Your task to perform on an android device: Do I have any events today? Image 0: 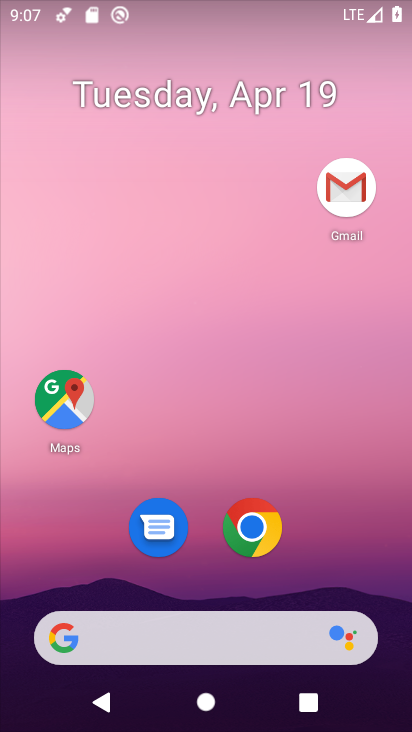
Step 0: drag from (363, 536) to (319, 121)
Your task to perform on an android device: Do I have any events today? Image 1: 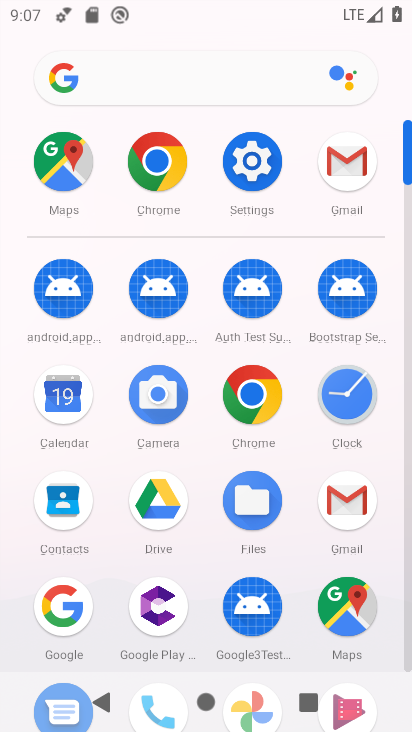
Step 1: click (60, 389)
Your task to perform on an android device: Do I have any events today? Image 2: 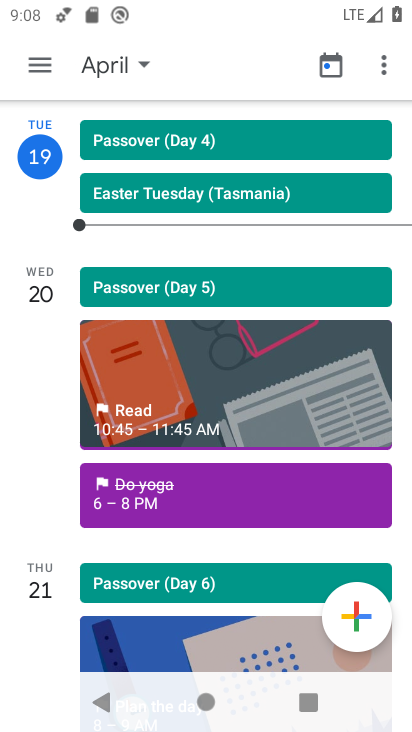
Step 2: task complete